Your task to perform on an android device: Open CNN.com Image 0: 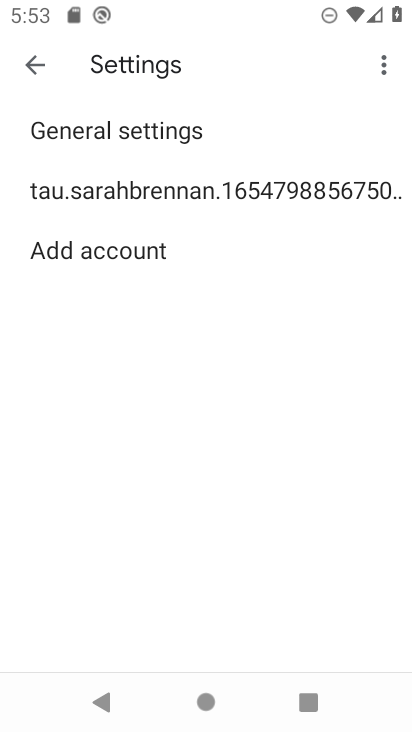
Step 0: press home button
Your task to perform on an android device: Open CNN.com Image 1: 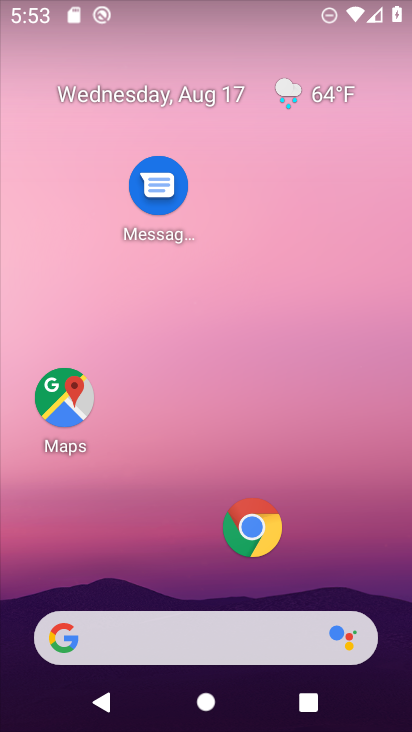
Step 1: drag from (187, 609) to (187, 226)
Your task to perform on an android device: Open CNN.com Image 2: 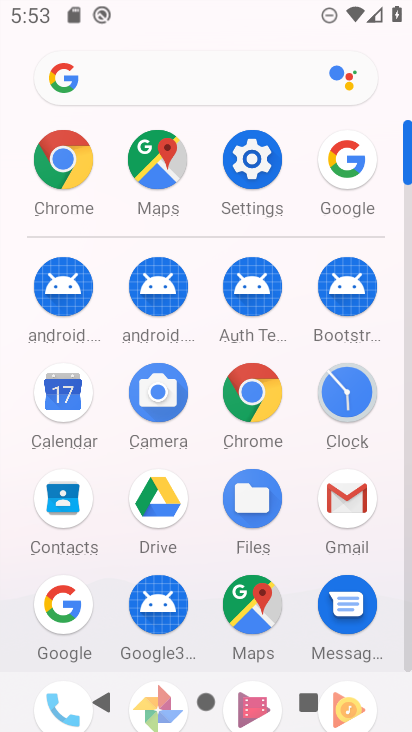
Step 2: click (76, 607)
Your task to perform on an android device: Open CNN.com Image 3: 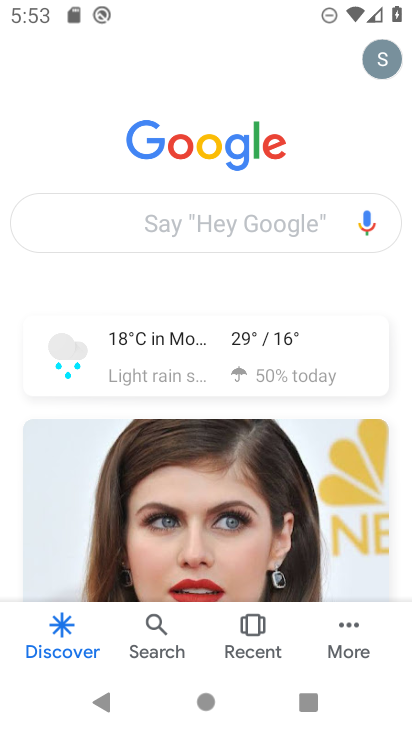
Step 3: click (161, 228)
Your task to perform on an android device: Open CNN.com Image 4: 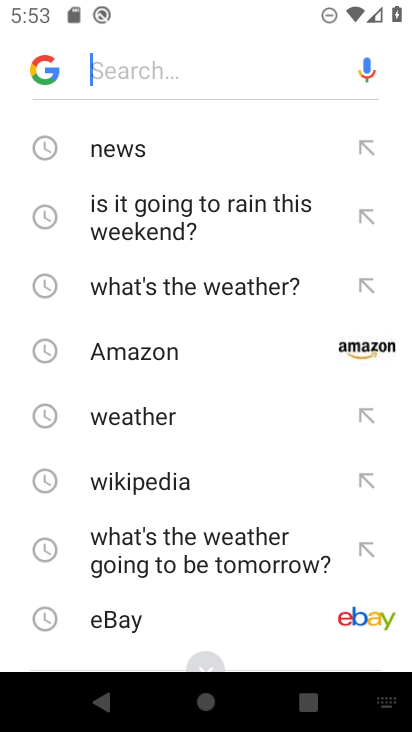
Step 4: drag from (140, 570) to (140, 289)
Your task to perform on an android device: Open CNN.com Image 5: 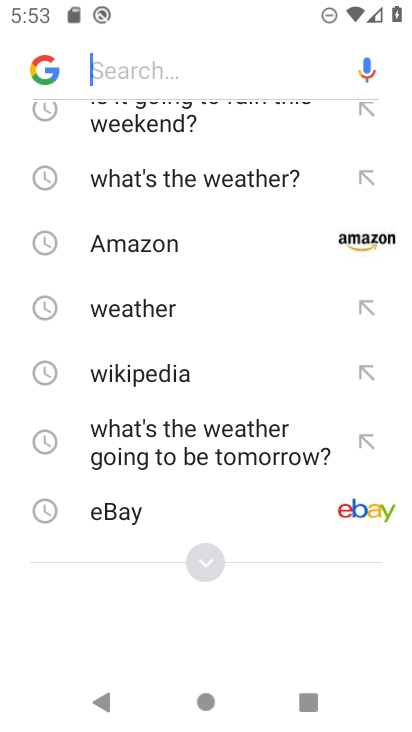
Step 5: click (206, 562)
Your task to perform on an android device: Open CNN.com Image 6: 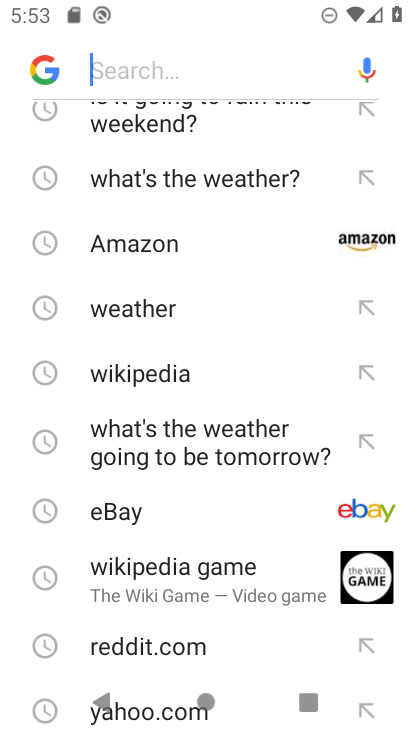
Step 6: drag from (180, 646) to (180, 405)
Your task to perform on an android device: Open CNN.com Image 7: 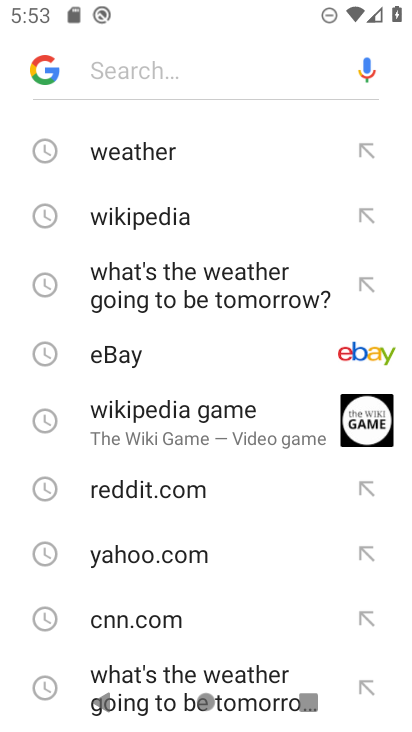
Step 7: click (95, 625)
Your task to perform on an android device: Open CNN.com Image 8: 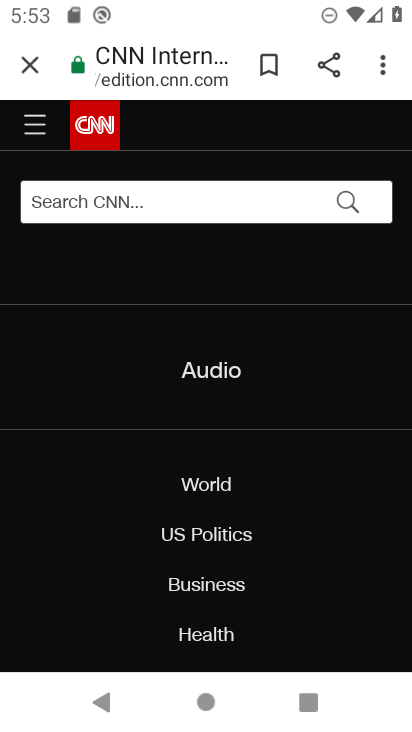
Step 8: task complete